Your task to perform on an android device: Open Android settings Image 0: 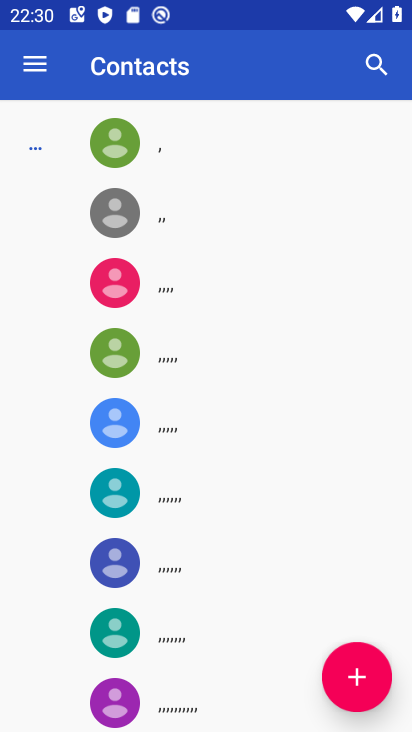
Step 0: press home button
Your task to perform on an android device: Open Android settings Image 1: 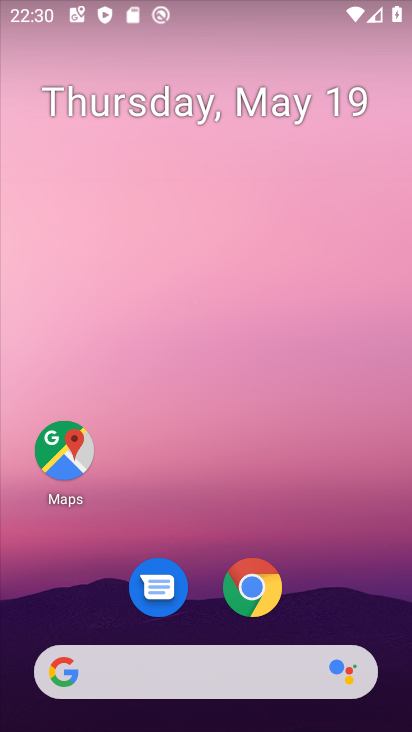
Step 1: drag from (264, 710) to (260, 297)
Your task to perform on an android device: Open Android settings Image 2: 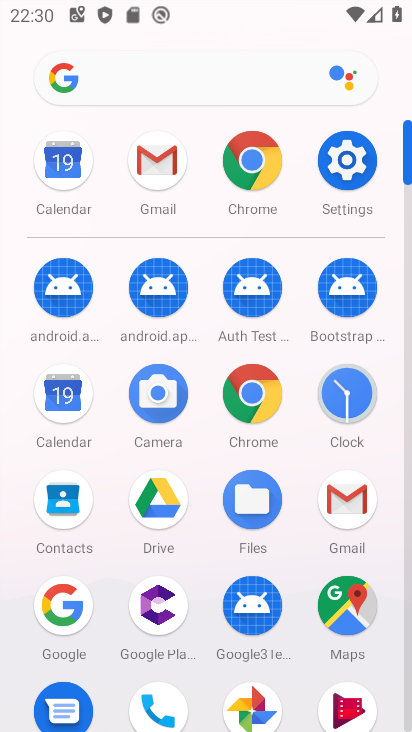
Step 2: click (348, 174)
Your task to perform on an android device: Open Android settings Image 3: 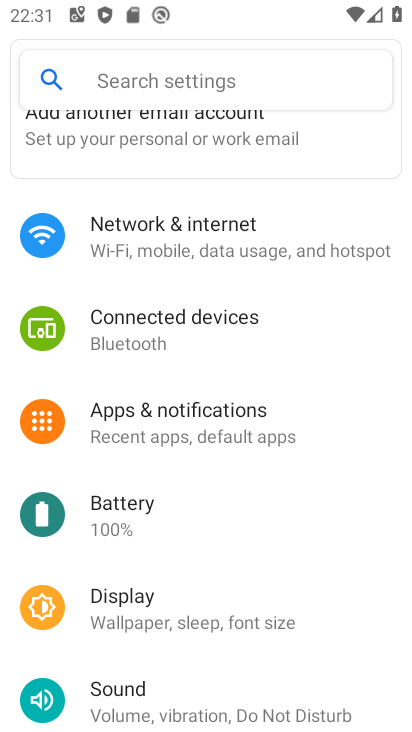
Step 3: click (151, 83)
Your task to perform on an android device: Open Android settings Image 4: 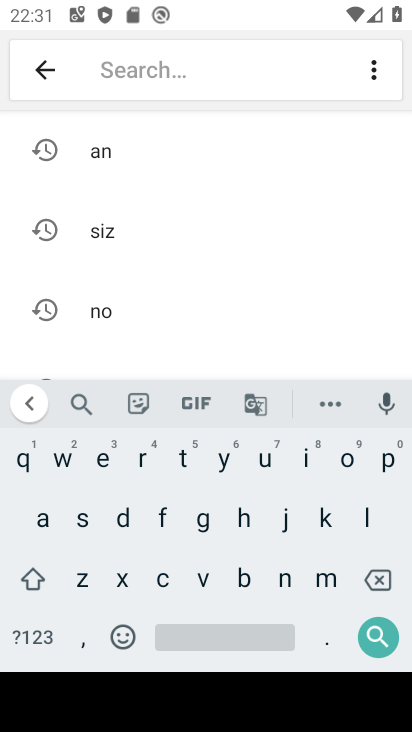
Step 4: click (122, 165)
Your task to perform on an android device: Open Android settings Image 5: 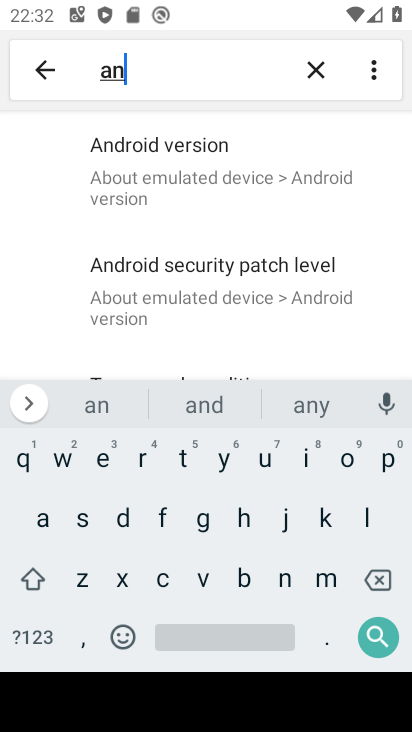
Step 5: click (131, 164)
Your task to perform on an android device: Open Android settings Image 6: 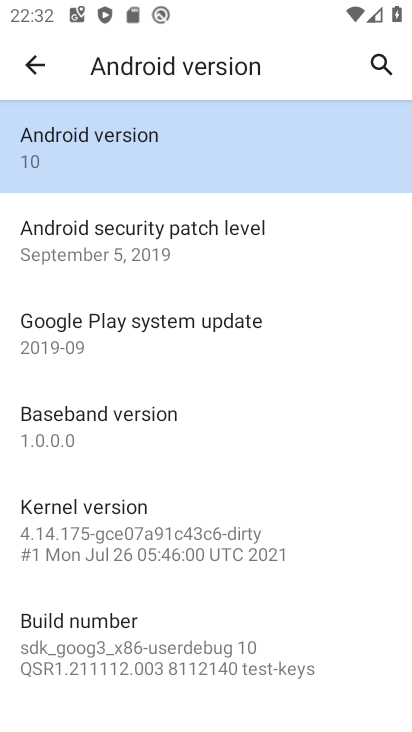
Step 6: task complete